Your task to perform on an android device: change timer sound Image 0: 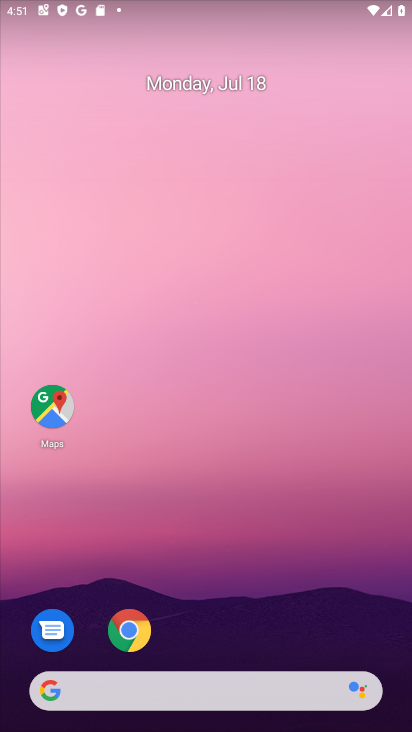
Step 0: press home button
Your task to perform on an android device: change timer sound Image 1: 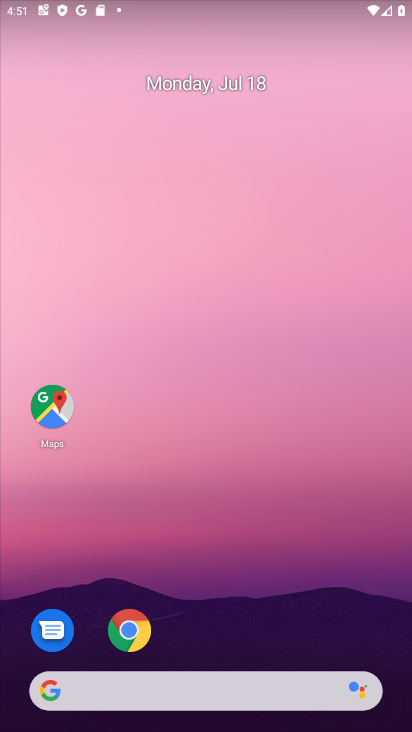
Step 1: drag from (220, 638) to (267, 74)
Your task to perform on an android device: change timer sound Image 2: 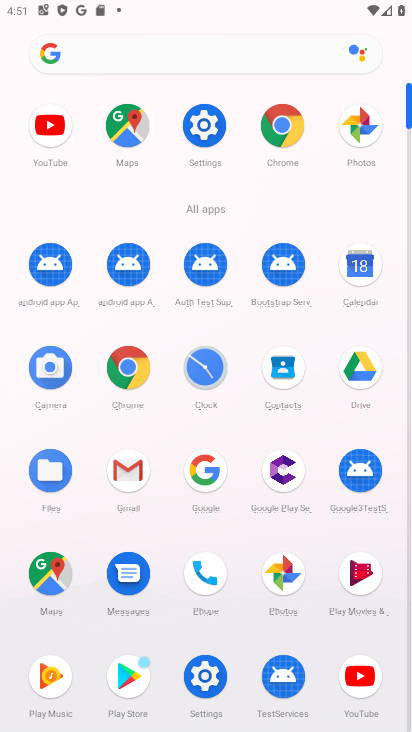
Step 2: click (202, 357)
Your task to perform on an android device: change timer sound Image 3: 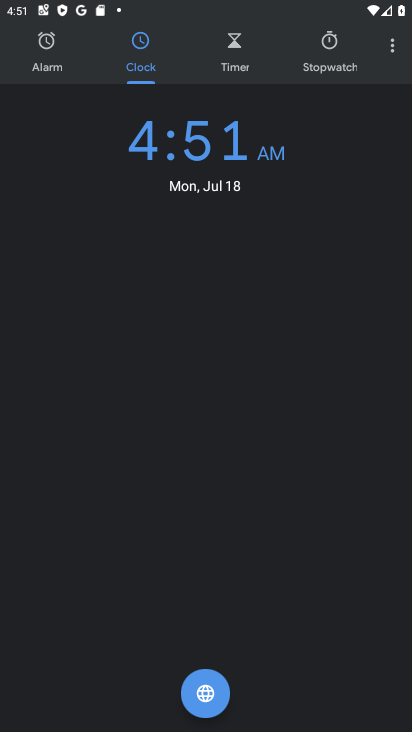
Step 3: click (394, 50)
Your task to perform on an android device: change timer sound Image 4: 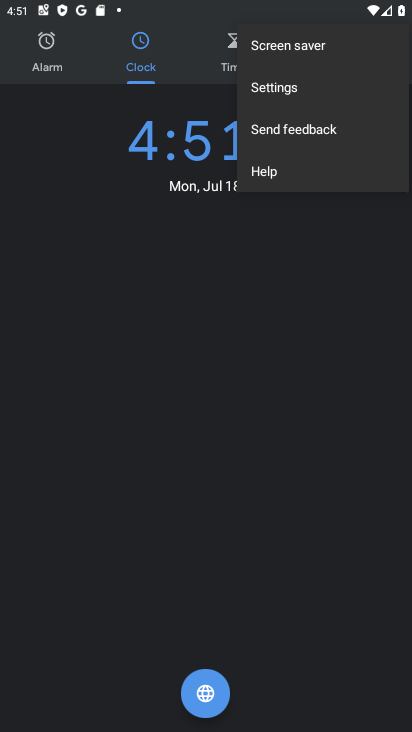
Step 4: click (300, 85)
Your task to perform on an android device: change timer sound Image 5: 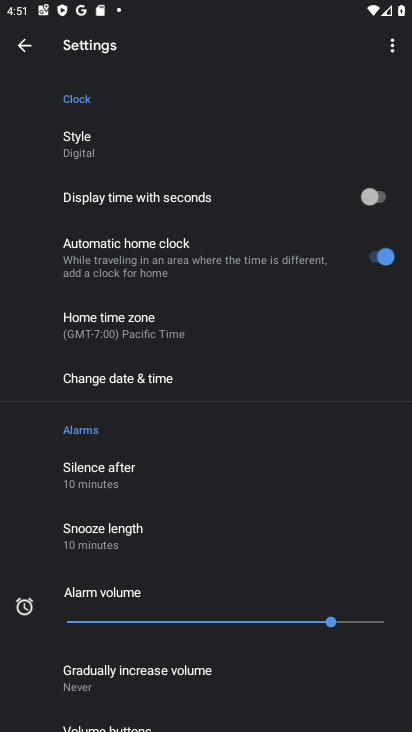
Step 5: drag from (188, 679) to (243, 292)
Your task to perform on an android device: change timer sound Image 6: 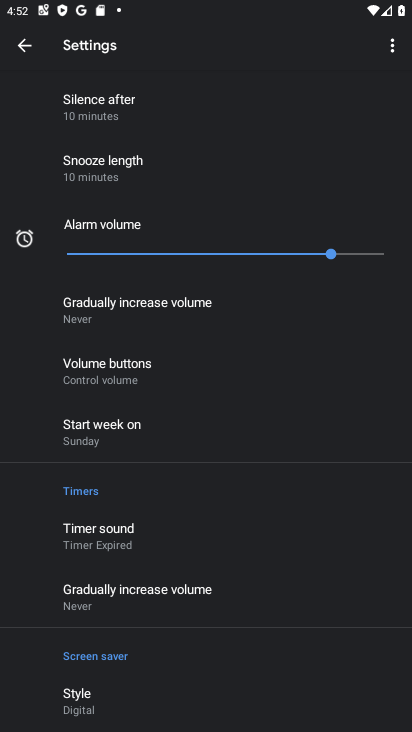
Step 6: click (165, 535)
Your task to perform on an android device: change timer sound Image 7: 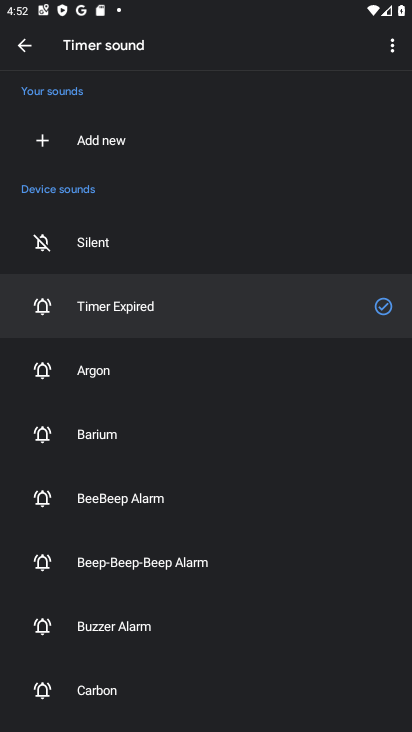
Step 7: click (137, 502)
Your task to perform on an android device: change timer sound Image 8: 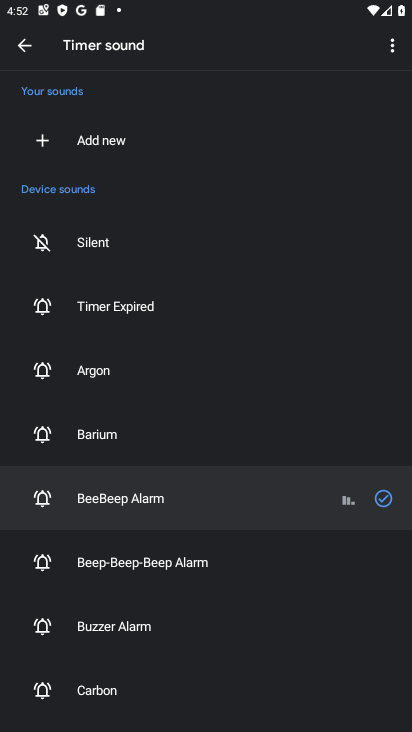
Step 8: task complete